Your task to perform on an android device: Open settings Image 0: 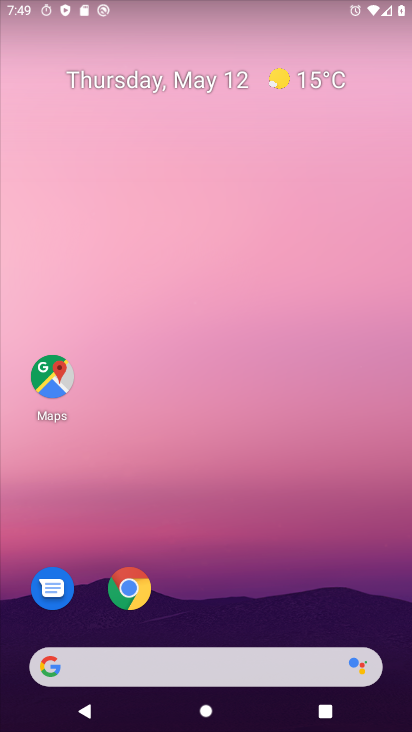
Step 0: drag from (275, 622) to (157, 236)
Your task to perform on an android device: Open settings Image 1: 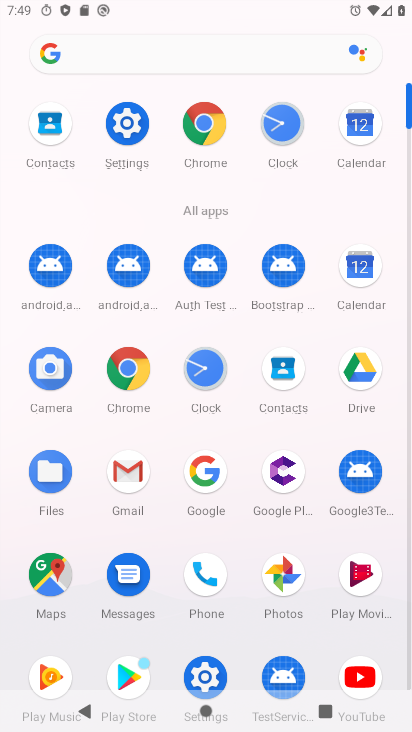
Step 1: click (124, 128)
Your task to perform on an android device: Open settings Image 2: 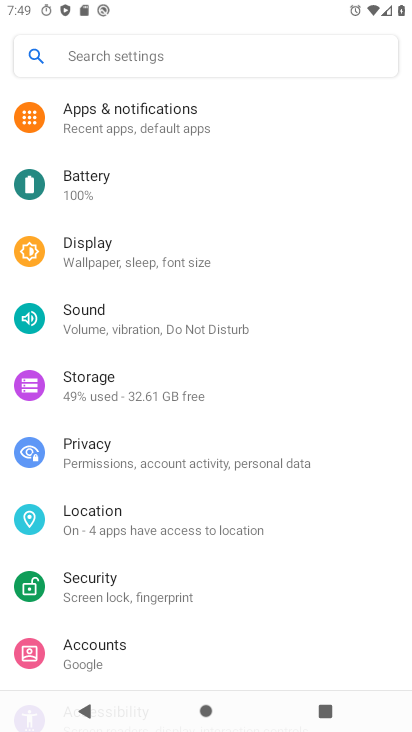
Step 2: task complete